Your task to perform on an android device: Open the phone app and click the voicemail tab. Image 0: 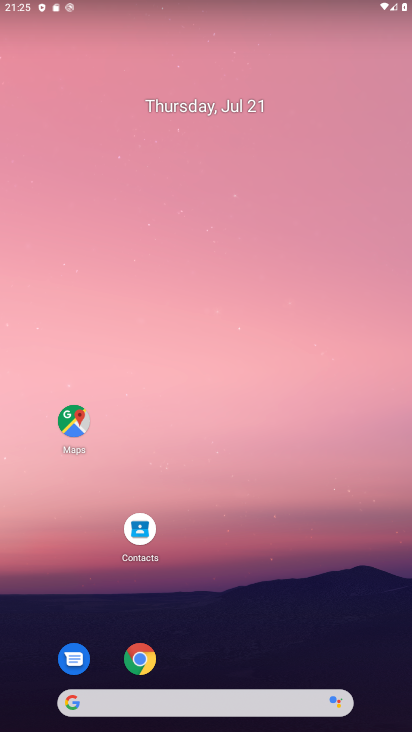
Step 0: drag from (251, 661) to (234, 196)
Your task to perform on an android device: Open the phone app and click the voicemail tab. Image 1: 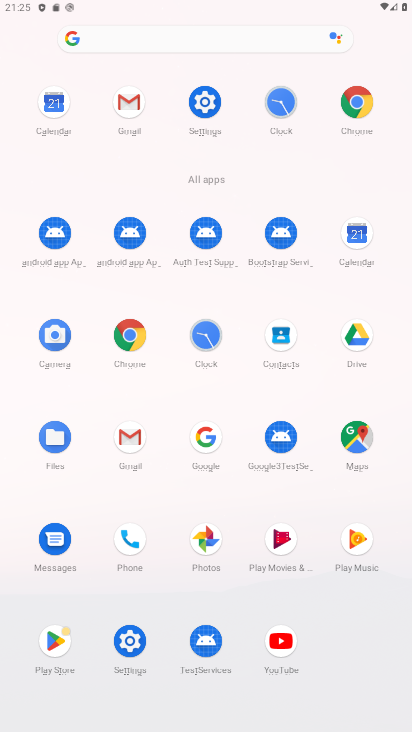
Step 1: click (132, 546)
Your task to perform on an android device: Open the phone app and click the voicemail tab. Image 2: 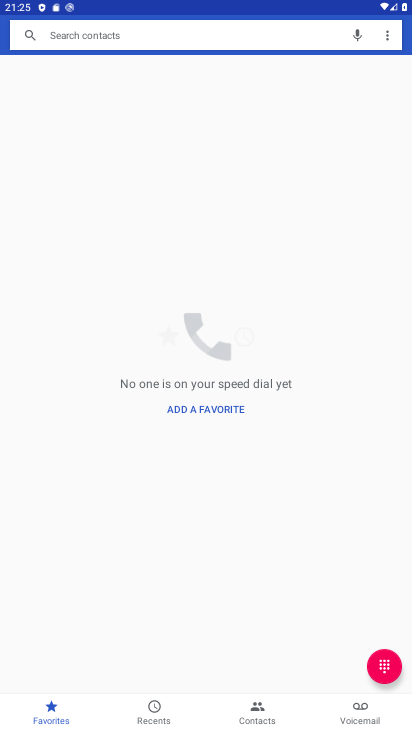
Step 2: click (364, 709)
Your task to perform on an android device: Open the phone app and click the voicemail tab. Image 3: 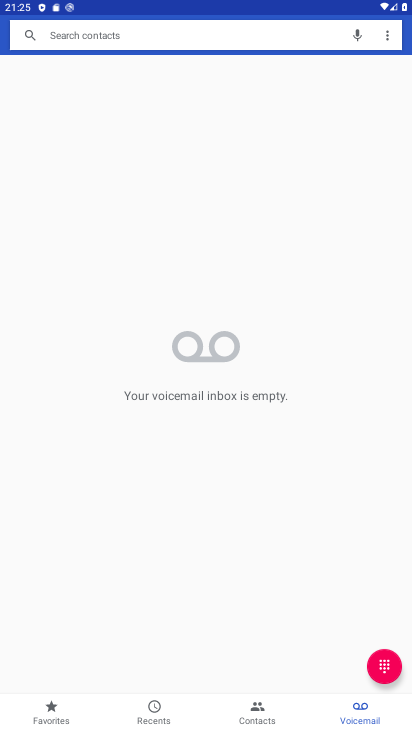
Step 3: task complete